Your task to perform on an android device: toggle notifications settings in the gmail app Image 0: 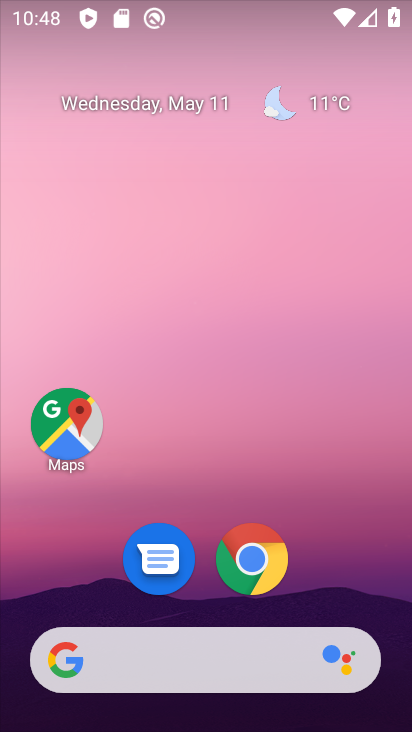
Step 0: drag from (342, 561) to (249, 84)
Your task to perform on an android device: toggle notifications settings in the gmail app Image 1: 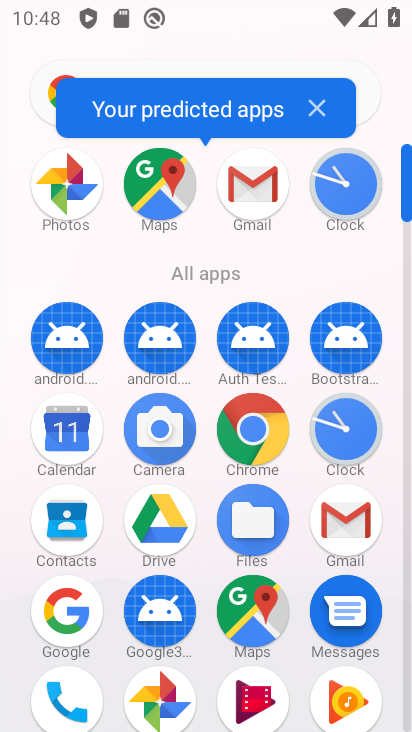
Step 1: click (264, 183)
Your task to perform on an android device: toggle notifications settings in the gmail app Image 2: 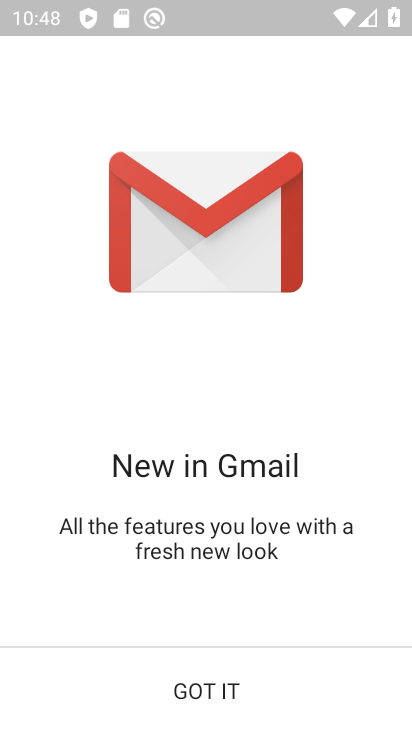
Step 2: click (220, 700)
Your task to perform on an android device: toggle notifications settings in the gmail app Image 3: 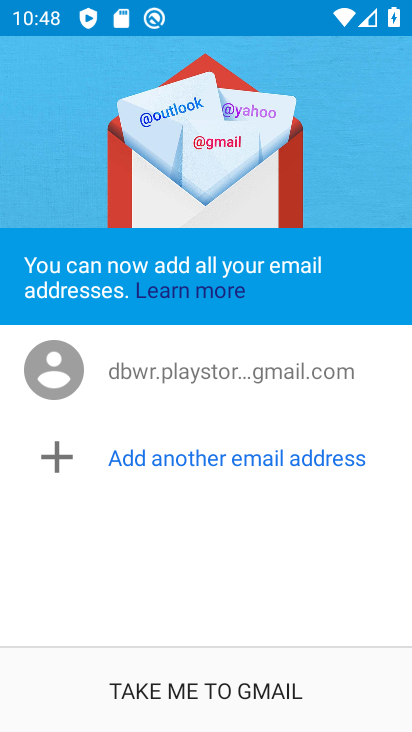
Step 3: click (228, 694)
Your task to perform on an android device: toggle notifications settings in the gmail app Image 4: 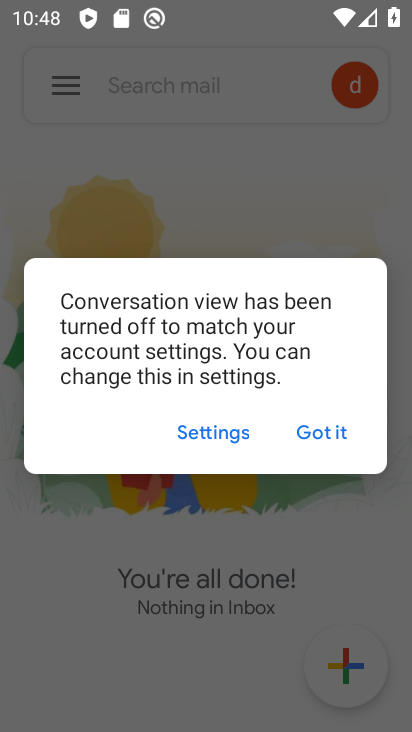
Step 4: click (331, 435)
Your task to perform on an android device: toggle notifications settings in the gmail app Image 5: 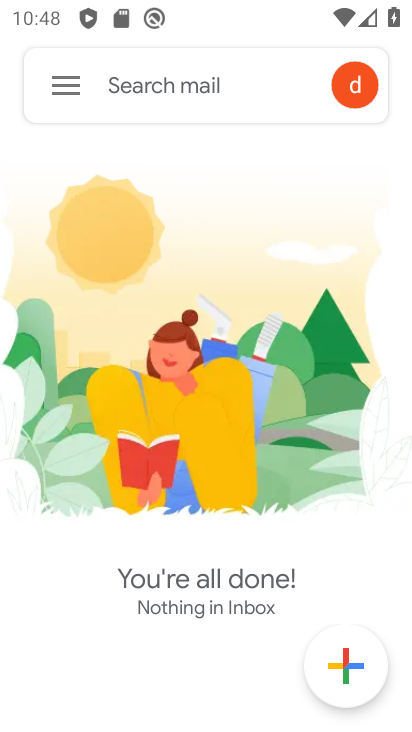
Step 5: click (71, 82)
Your task to perform on an android device: toggle notifications settings in the gmail app Image 6: 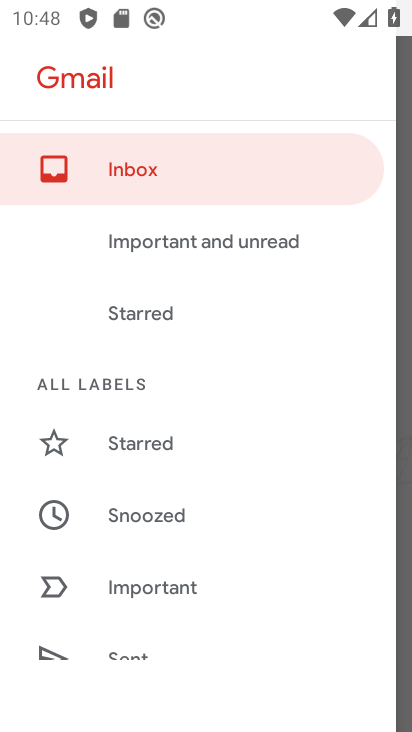
Step 6: drag from (278, 547) to (264, 243)
Your task to perform on an android device: toggle notifications settings in the gmail app Image 7: 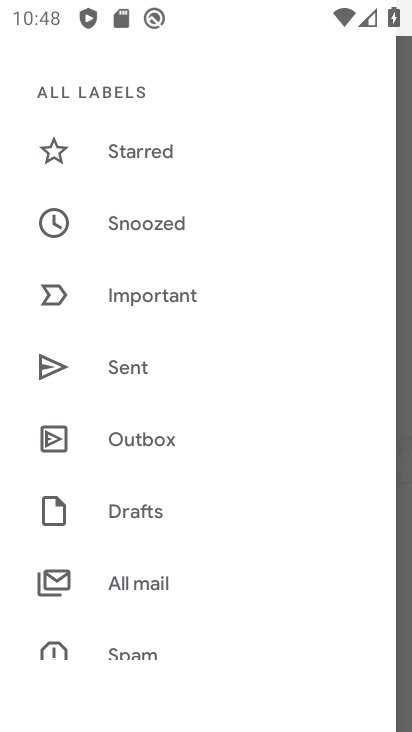
Step 7: drag from (265, 455) to (251, 135)
Your task to perform on an android device: toggle notifications settings in the gmail app Image 8: 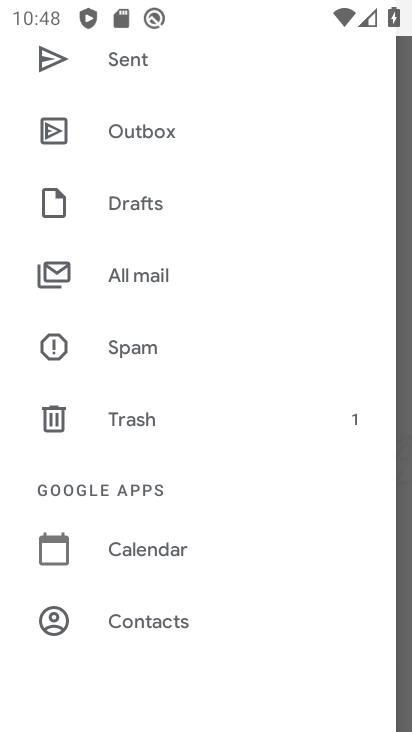
Step 8: drag from (238, 522) to (223, 212)
Your task to perform on an android device: toggle notifications settings in the gmail app Image 9: 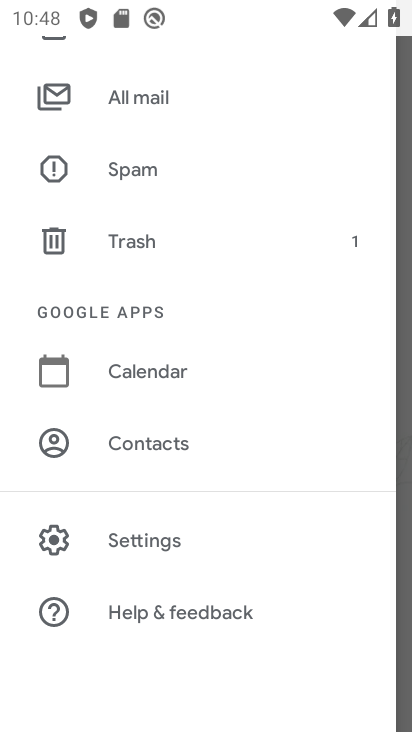
Step 9: click (176, 545)
Your task to perform on an android device: toggle notifications settings in the gmail app Image 10: 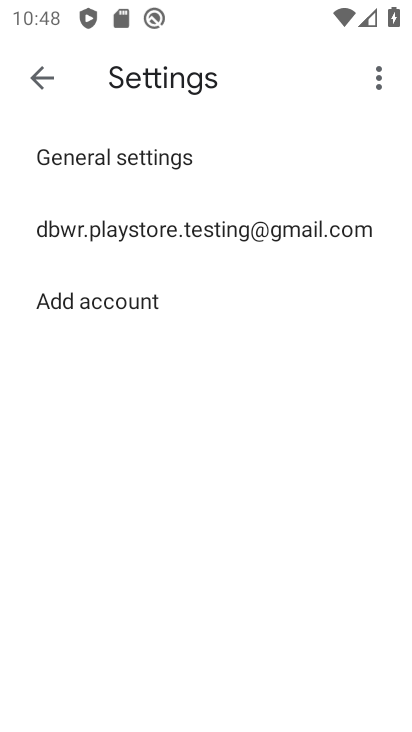
Step 10: click (164, 155)
Your task to perform on an android device: toggle notifications settings in the gmail app Image 11: 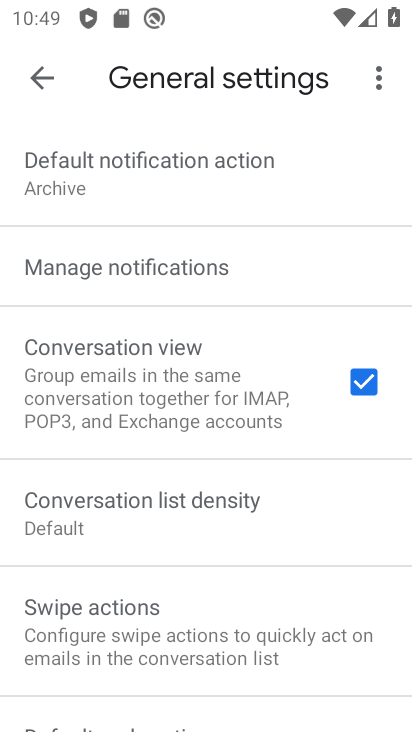
Step 11: click (238, 268)
Your task to perform on an android device: toggle notifications settings in the gmail app Image 12: 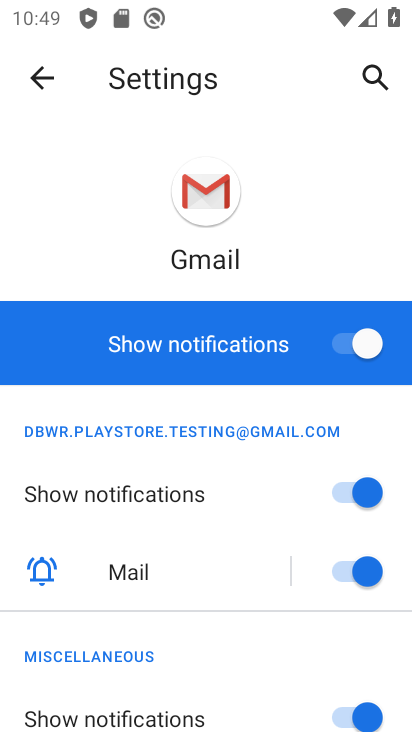
Step 12: drag from (255, 553) to (286, 277)
Your task to perform on an android device: toggle notifications settings in the gmail app Image 13: 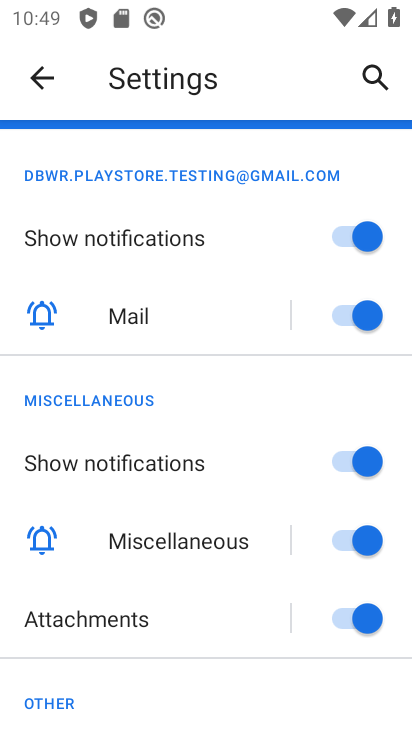
Step 13: drag from (238, 665) to (222, 339)
Your task to perform on an android device: toggle notifications settings in the gmail app Image 14: 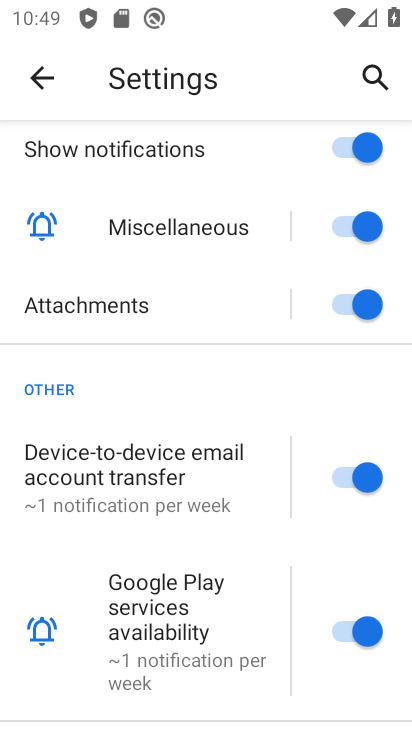
Step 14: drag from (224, 207) to (386, 474)
Your task to perform on an android device: toggle notifications settings in the gmail app Image 15: 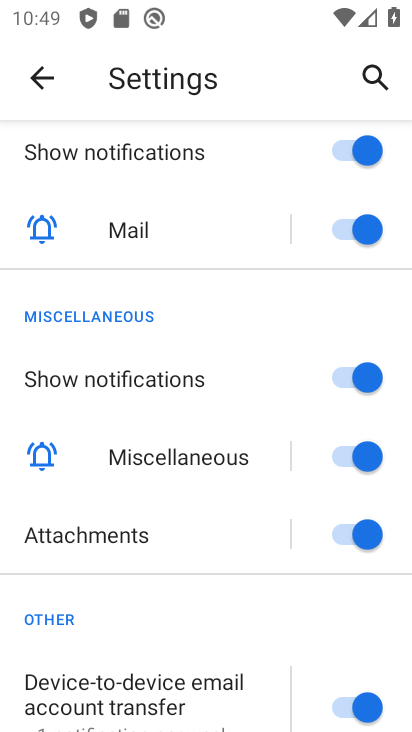
Step 15: drag from (238, 197) to (373, 728)
Your task to perform on an android device: toggle notifications settings in the gmail app Image 16: 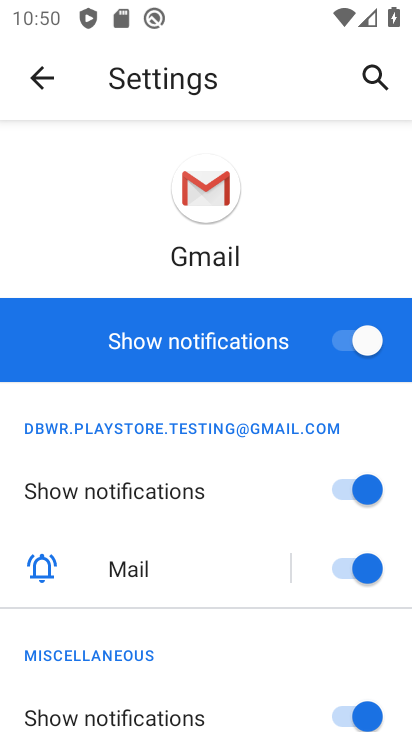
Step 16: click (342, 561)
Your task to perform on an android device: toggle notifications settings in the gmail app Image 17: 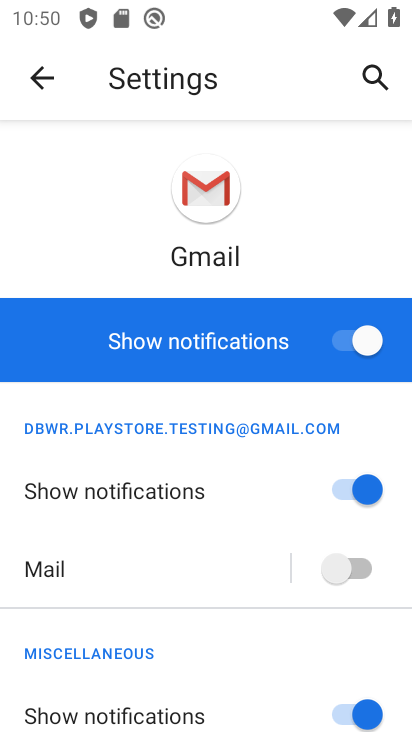
Step 17: task complete